Your task to perform on an android device: turn off notifications in google photos Image 0: 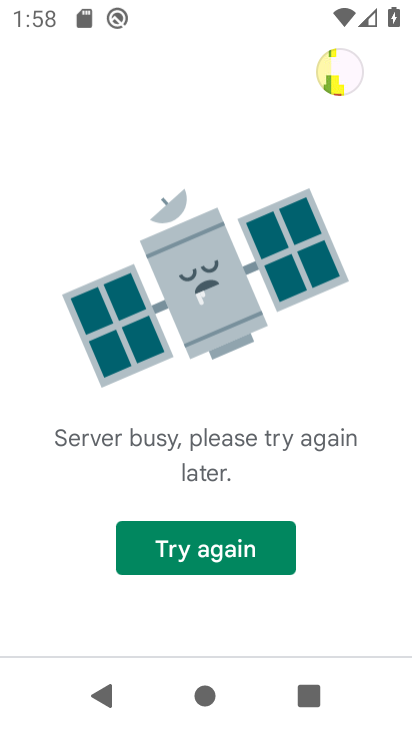
Step 0: press home button
Your task to perform on an android device: turn off notifications in google photos Image 1: 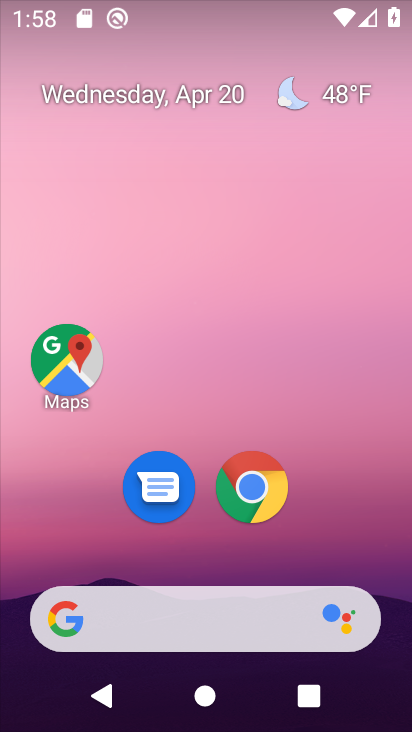
Step 1: drag from (196, 558) to (240, 129)
Your task to perform on an android device: turn off notifications in google photos Image 2: 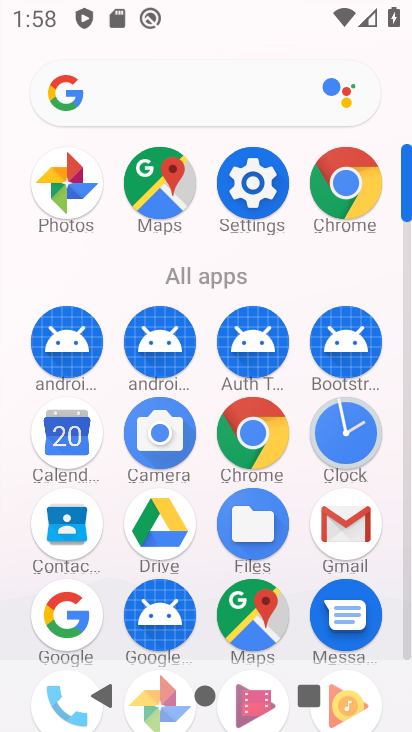
Step 2: click (222, 367)
Your task to perform on an android device: turn off notifications in google photos Image 3: 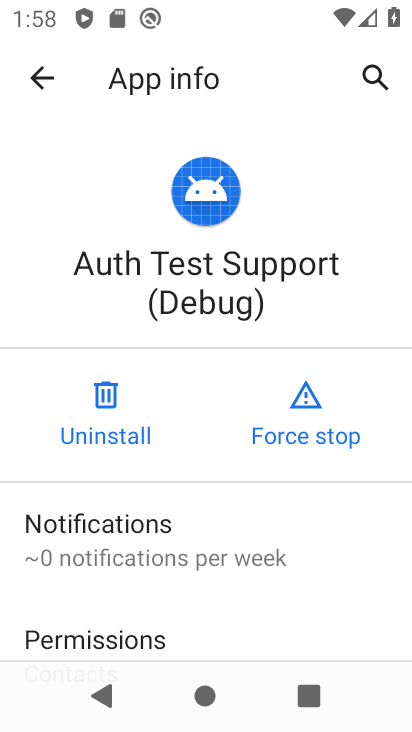
Step 3: press home button
Your task to perform on an android device: turn off notifications in google photos Image 4: 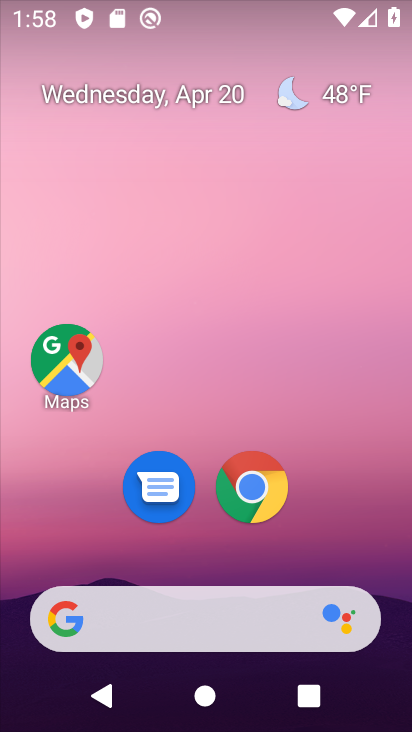
Step 4: drag from (205, 458) to (324, 7)
Your task to perform on an android device: turn off notifications in google photos Image 5: 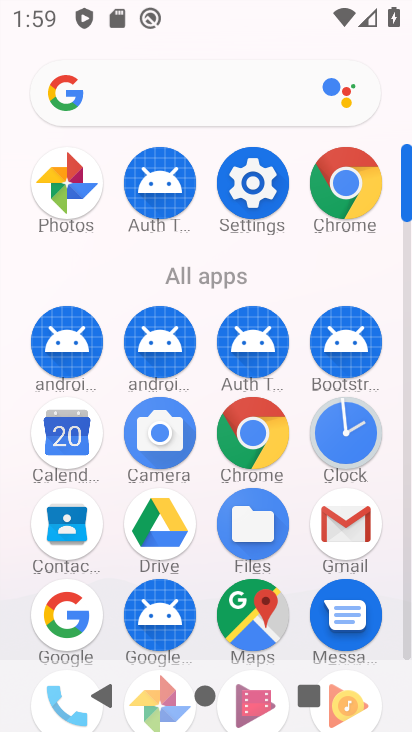
Step 5: drag from (196, 591) to (232, 411)
Your task to perform on an android device: turn off notifications in google photos Image 6: 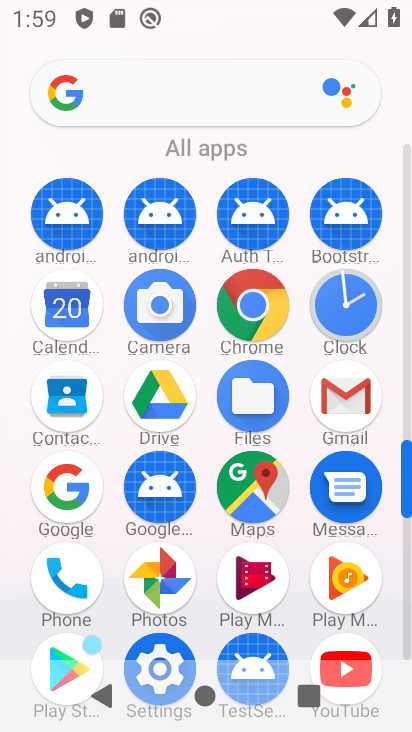
Step 6: click (165, 581)
Your task to perform on an android device: turn off notifications in google photos Image 7: 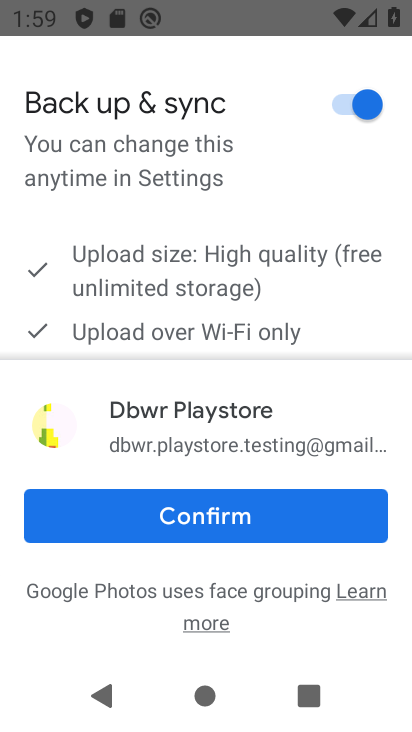
Step 7: click (275, 514)
Your task to perform on an android device: turn off notifications in google photos Image 8: 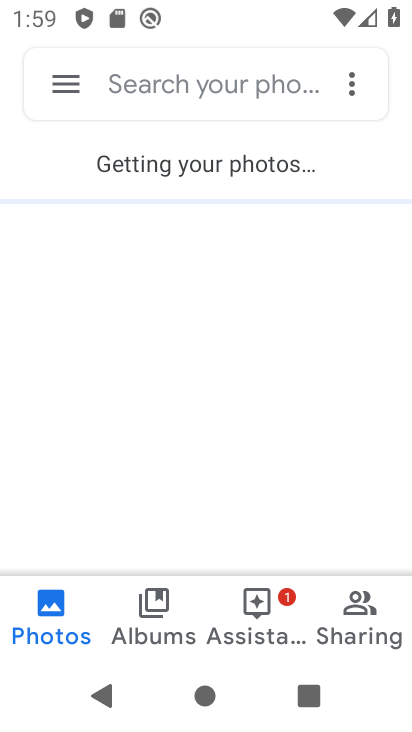
Step 8: click (57, 88)
Your task to perform on an android device: turn off notifications in google photos Image 9: 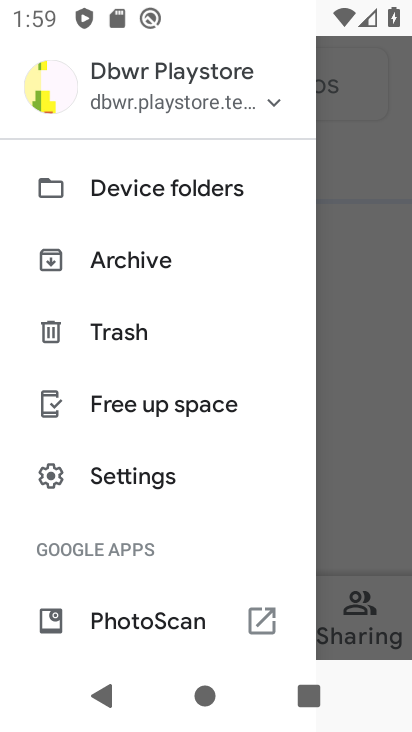
Step 9: click (127, 484)
Your task to perform on an android device: turn off notifications in google photos Image 10: 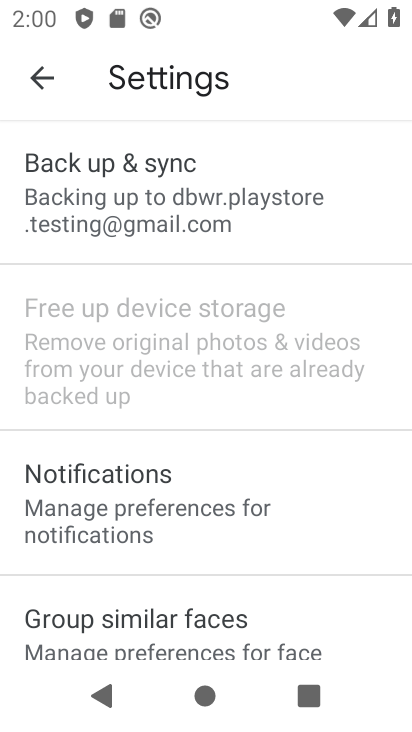
Step 10: click (149, 526)
Your task to perform on an android device: turn off notifications in google photos Image 11: 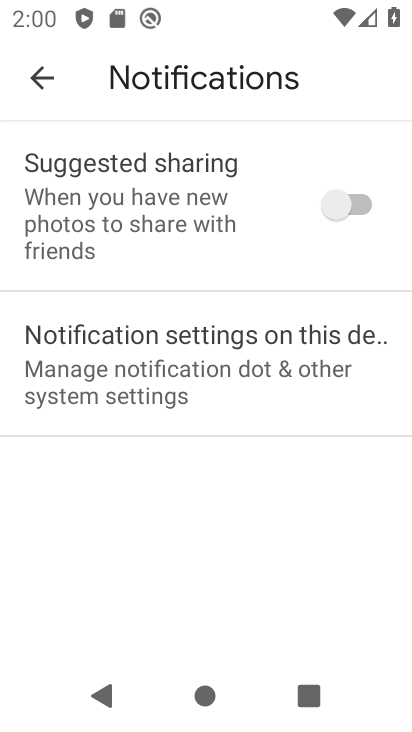
Step 11: click (195, 356)
Your task to perform on an android device: turn off notifications in google photos Image 12: 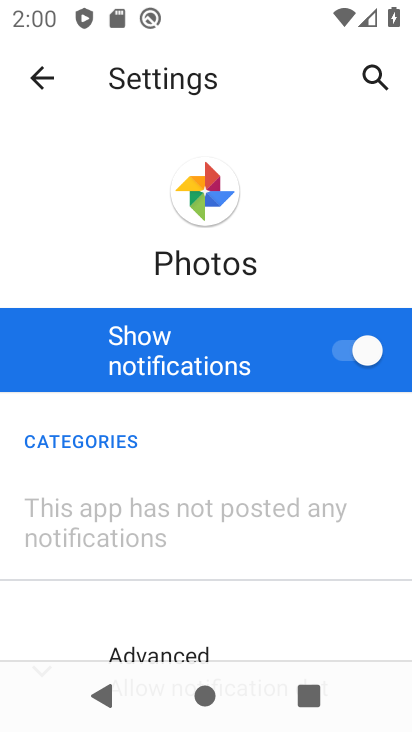
Step 12: click (353, 356)
Your task to perform on an android device: turn off notifications in google photos Image 13: 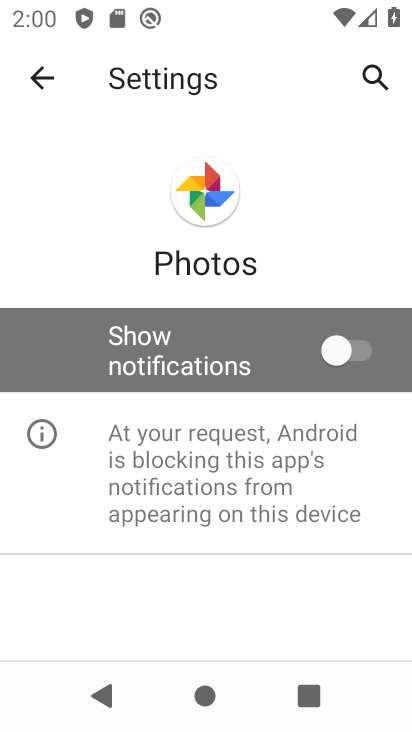
Step 13: task complete